Your task to perform on an android device: Go to CNN.com Image 0: 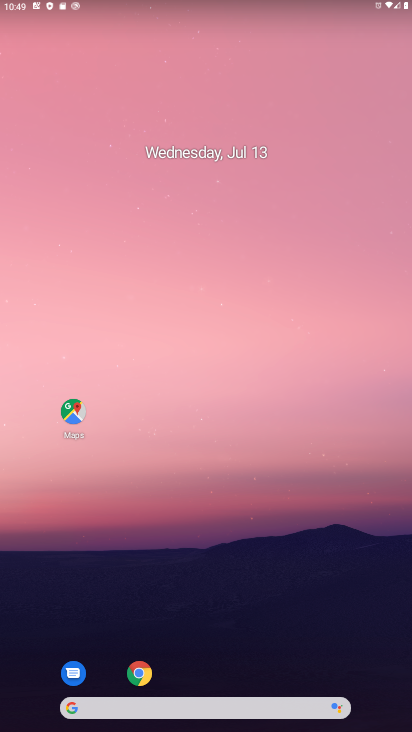
Step 0: click (141, 681)
Your task to perform on an android device: Go to CNN.com Image 1: 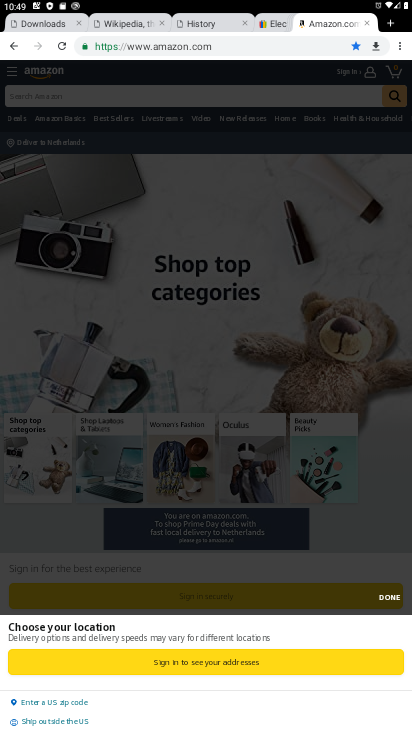
Step 1: click (393, 26)
Your task to perform on an android device: Go to CNN.com Image 2: 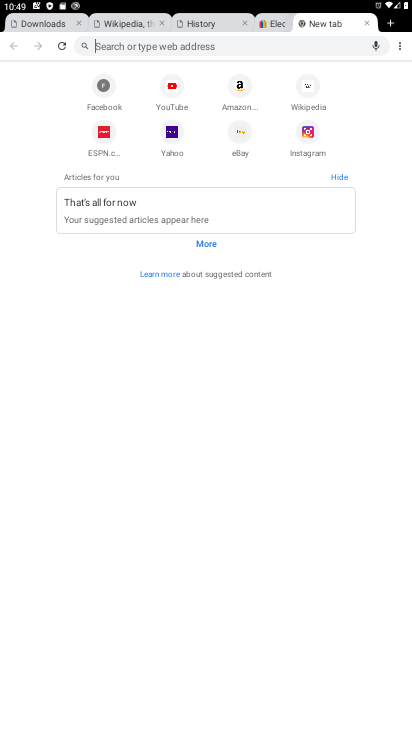
Step 2: type "cnn"
Your task to perform on an android device: Go to CNN.com Image 3: 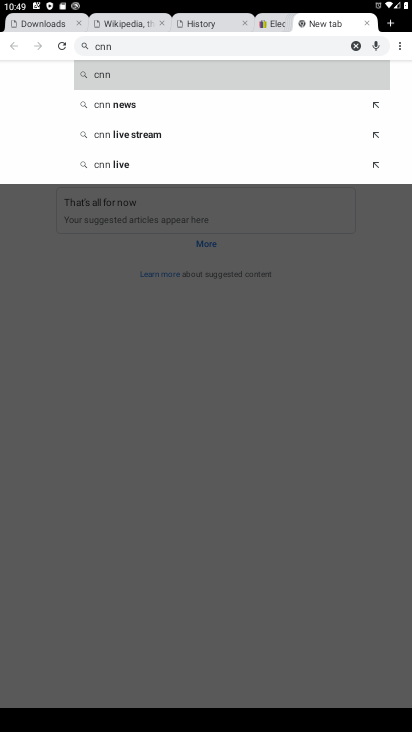
Step 3: click (159, 79)
Your task to perform on an android device: Go to CNN.com Image 4: 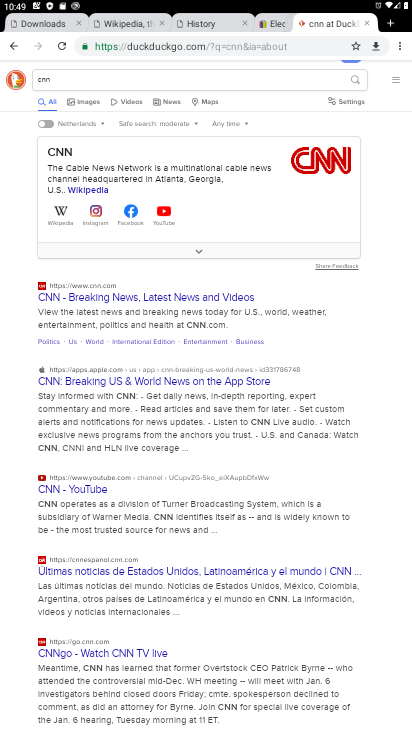
Step 4: click (221, 306)
Your task to perform on an android device: Go to CNN.com Image 5: 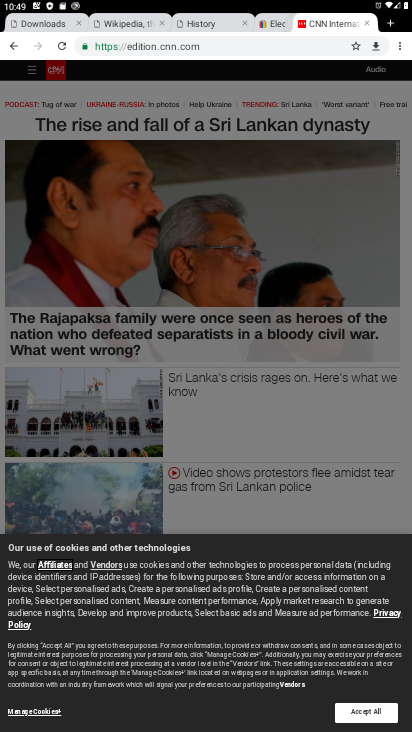
Step 5: task complete